Your task to perform on an android device: Go to Google Image 0: 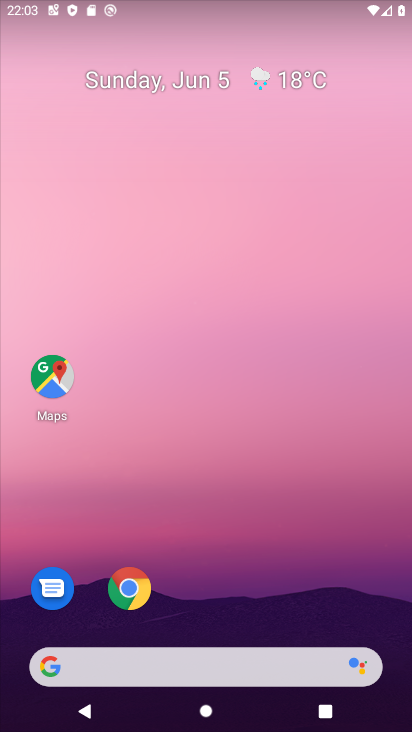
Step 0: drag from (341, 597) to (360, 204)
Your task to perform on an android device: Go to Google Image 1: 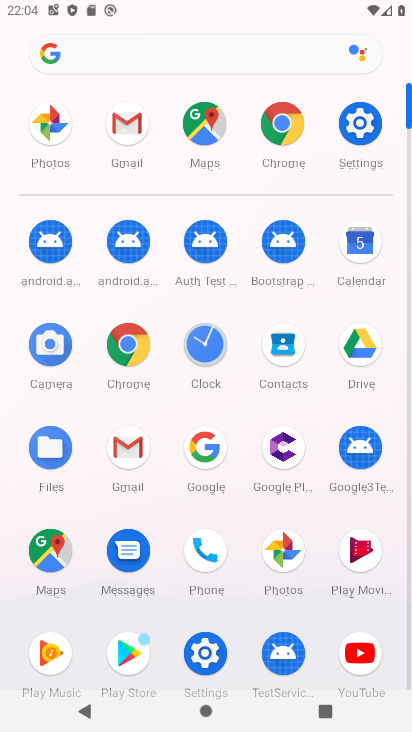
Step 1: click (214, 452)
Your task to perform on an android device: Go to Google Image 2: 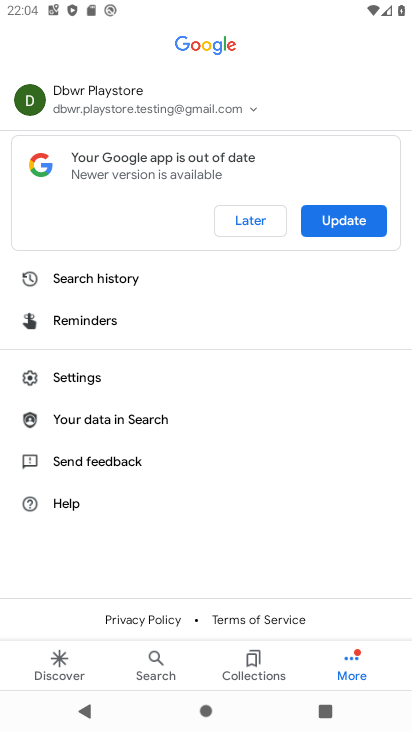
Step 2: task complete